Your task to perform on an android device: Open location settings Image 0: 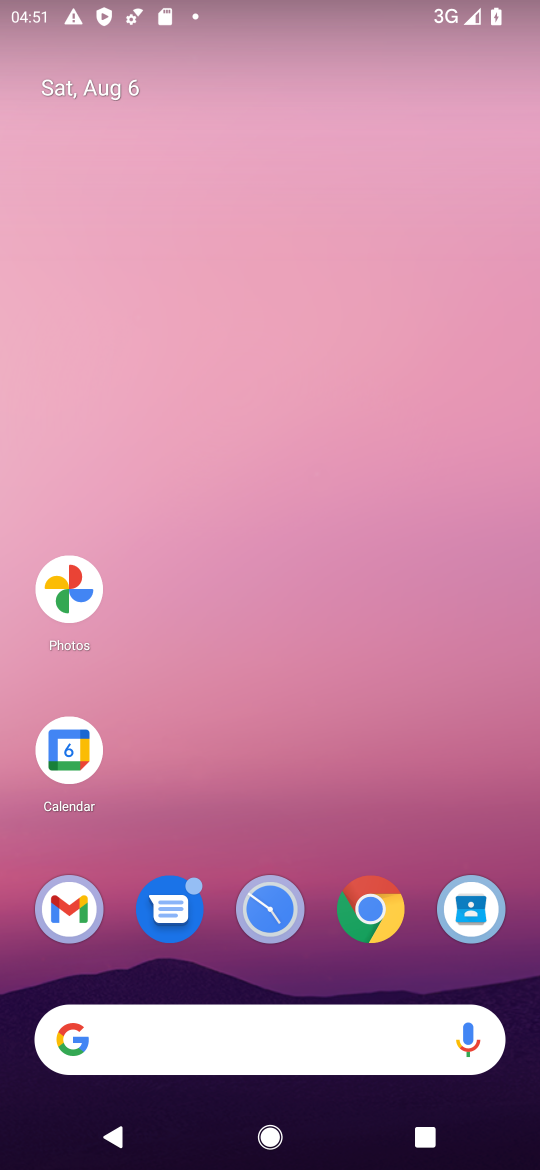
Step 0: drag from (337, 768) to (134, 153)
Your task to perform on an android device: Open location settings Image 1: 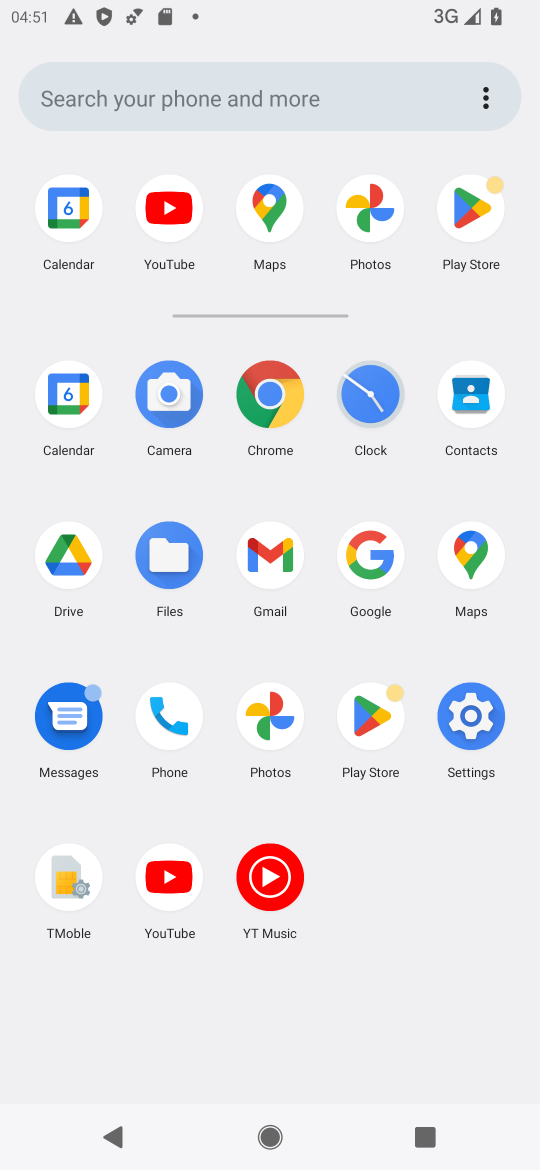
Step 1: click (459, 706)
Your task to perform on an android device: Open location settings Image 2: 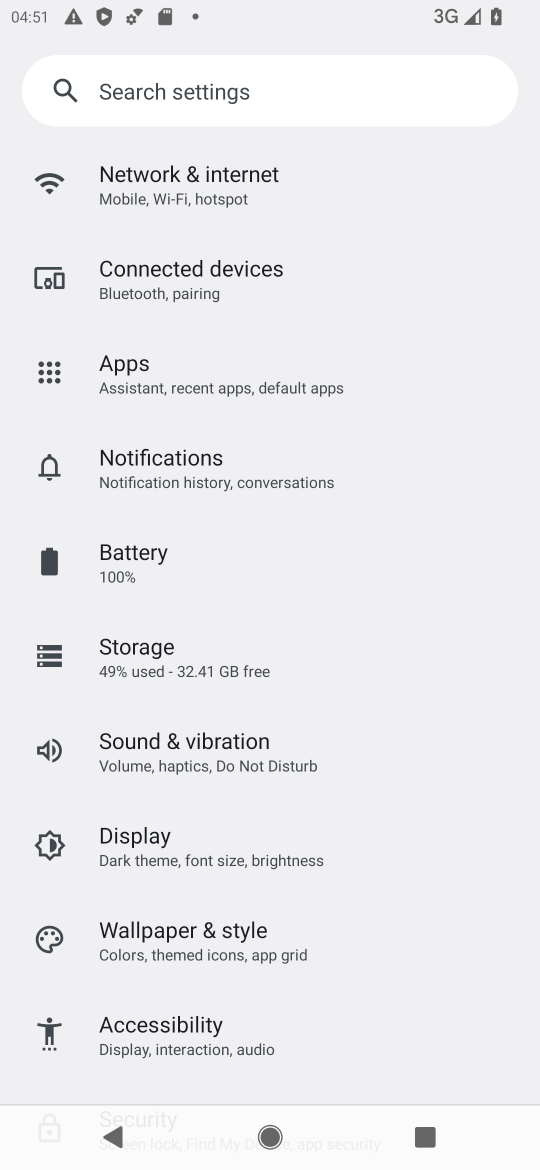
Step 2: drag from (392, 984) to (370, 485)
Your task to perform on an android device: Open location settings Image 3: 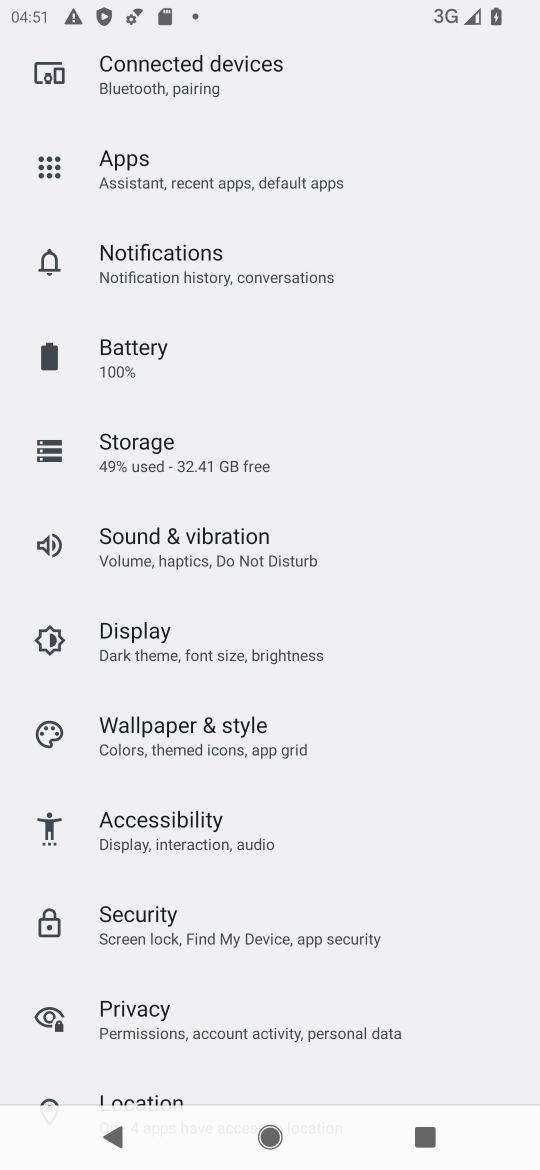
Step 3: drag from (361, 867) to (364, 281)
Your task to perform on an android device: Open location settings Image 4: 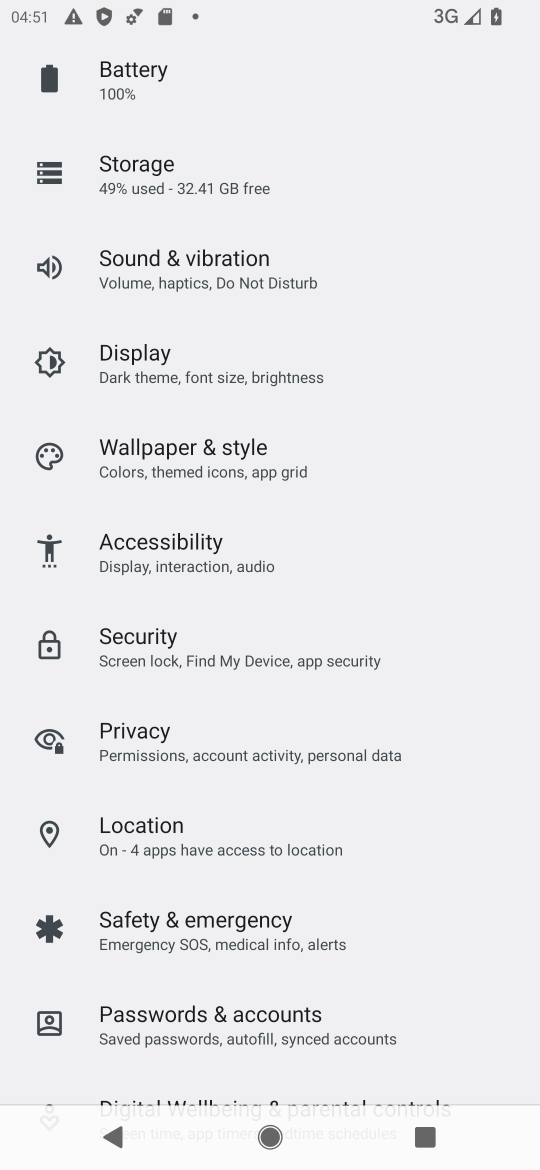
Step 4: click (155, 823)
Your task to perform on an android device: Open location settings Image 5: 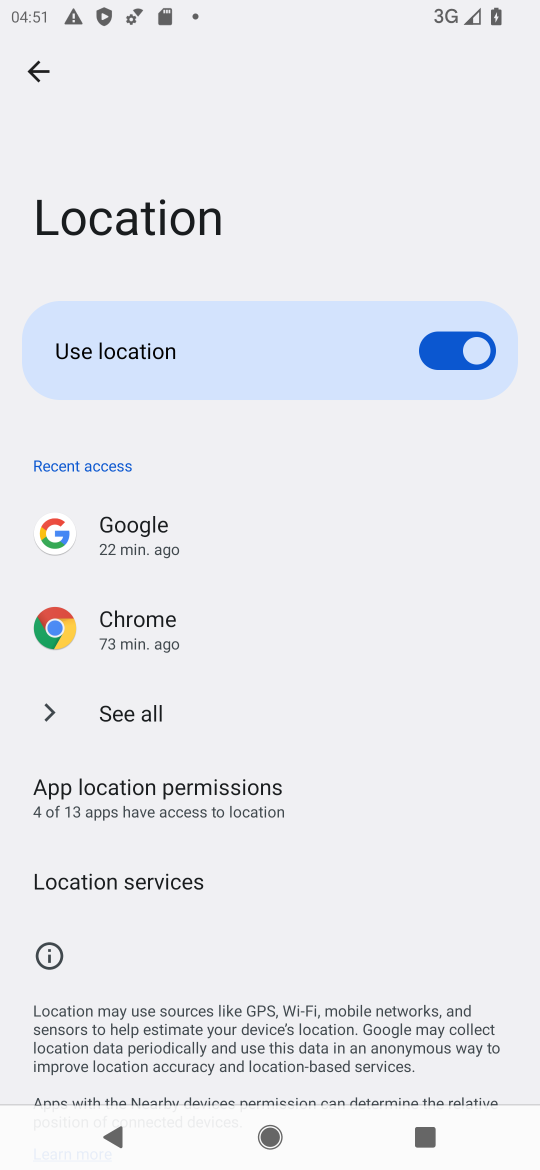
Step 5: task complete